Your task to perform on an android device: toggle translation in the chrome app Image 0: 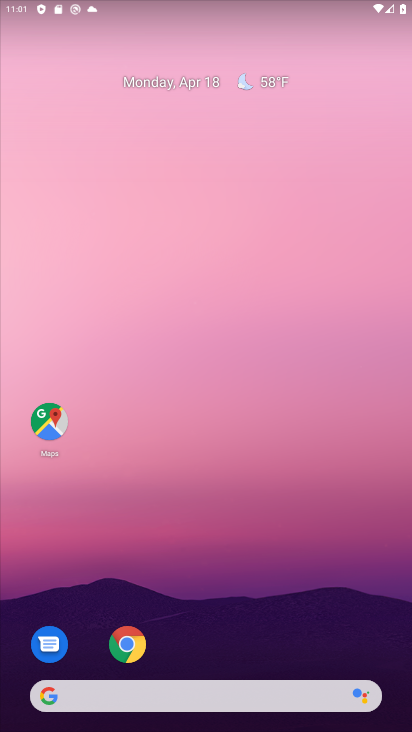
Step 0: drag from (202, 657) to (191, 116)
Your task to perform on an android device: toggle translation in the chrome app Image 1: 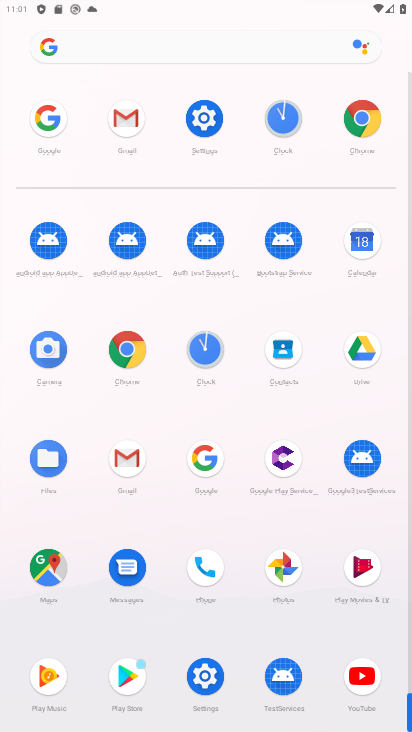
Step 1: click (125, 347)
Your task to perform on an android device: toggle translation in the chrome app Image 2: 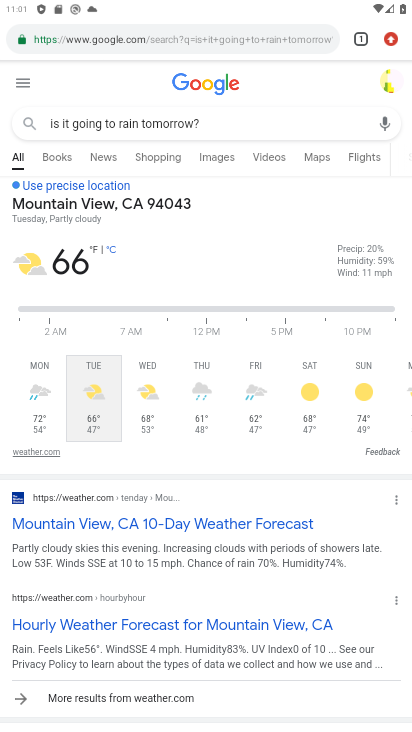
Step 2: click (389, 38)
Your task to perform on an android device: toggle translation in the chrome app Image 3: 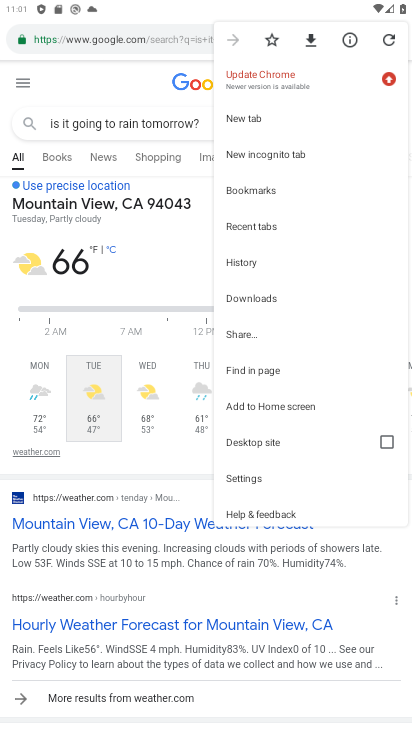
Step 3: click (249, 480)
Your task to perform on an android device: toggle translation in the chrome app Image 4: 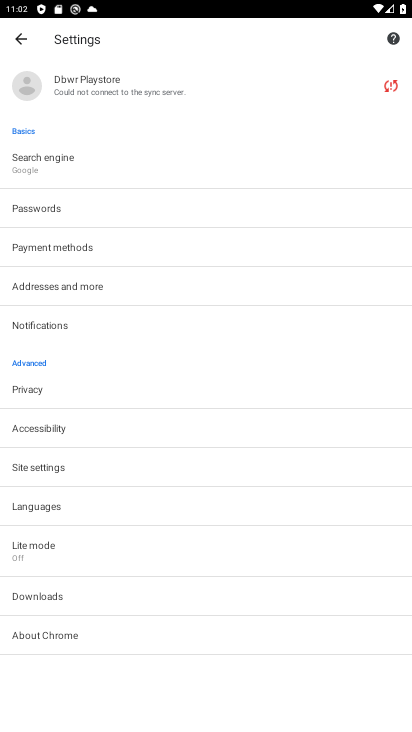
Step 4: click (51, 500)
Your task to perform on an android device: toggle translation in the chrome app Image 5: 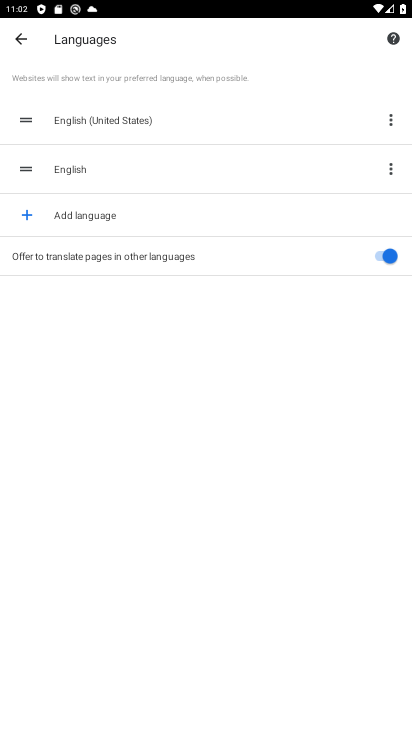
Step 5: click (383, 259)
Your task to perform on an android device: toggle translation in the chrome app Image 6: 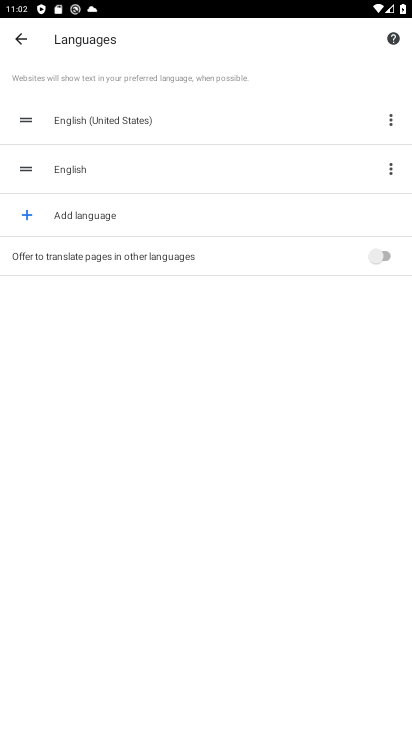
Step 6: task complete